Your task to perform on an android device: turn on the 24-hour format for clock Image 0: 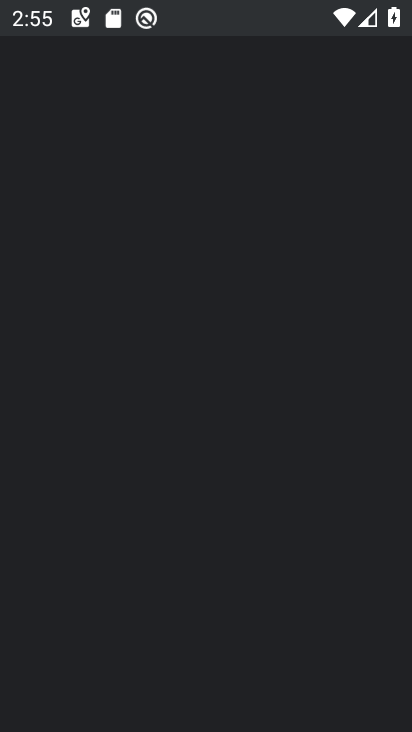
Step 0: drag from (208, 514) to (204, 183)
Your task to perform on an android device: turn on the 24-hour format for clock Image 1: 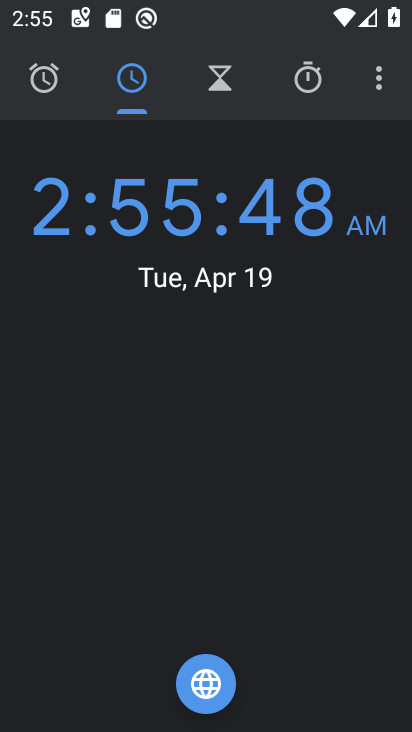
Step 1: press home button
Your task to perform on an android device: turn on the 24-hour format for clock Image 2: 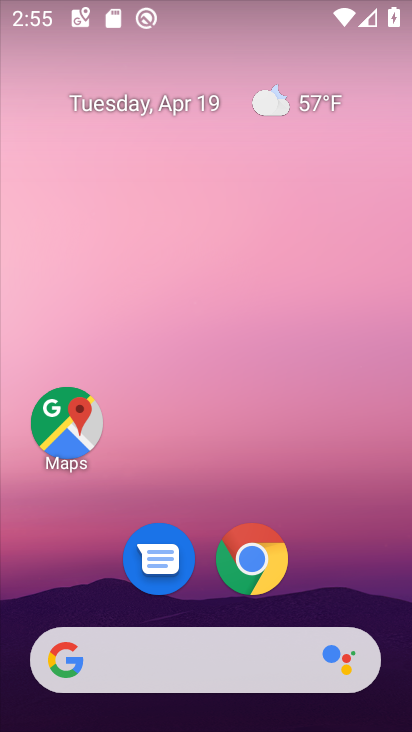
Step 2: drag from (209, 592) to (200, 122)
Your task to perform on an android device: turn on the 24-hour format for clock Image 3: 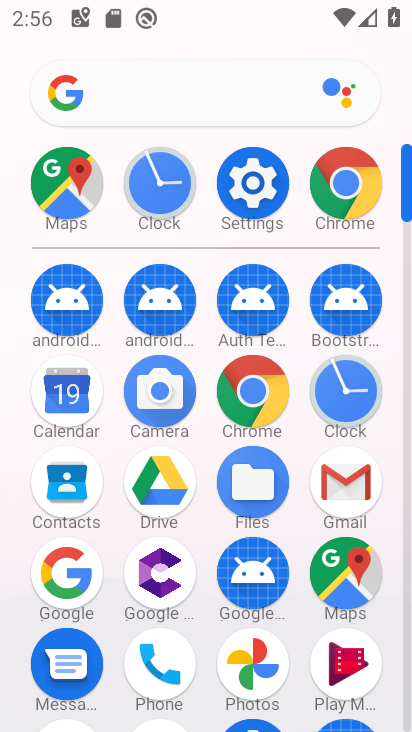
Step 3: click (341, 384)
Your task to perform on an android device: turn on the 24-hour format for clock Image 4: 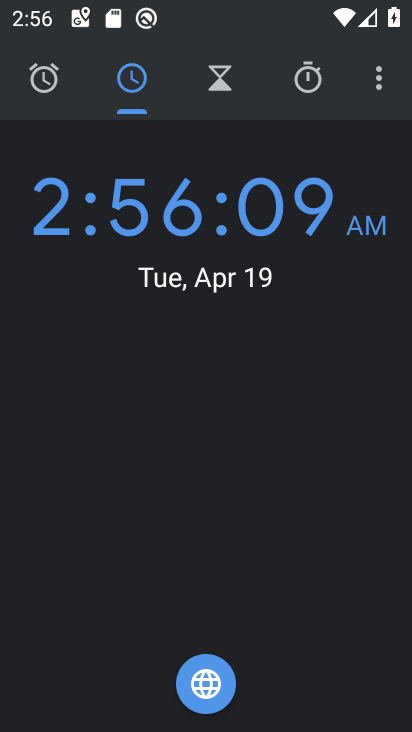
Step 4: click (378, 72)
Your task to perform on an android device: turn on the 24-hour format for clock Image 5: 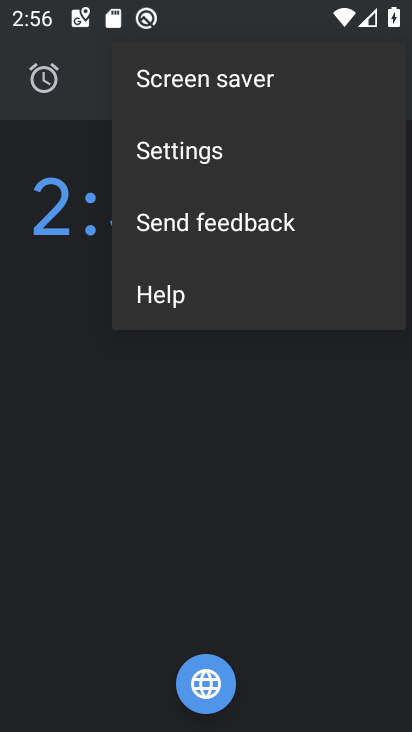
Step 5: click (236, 144)
Your task to perform on an android device: turn on the 24-hour format for clock Image 6: 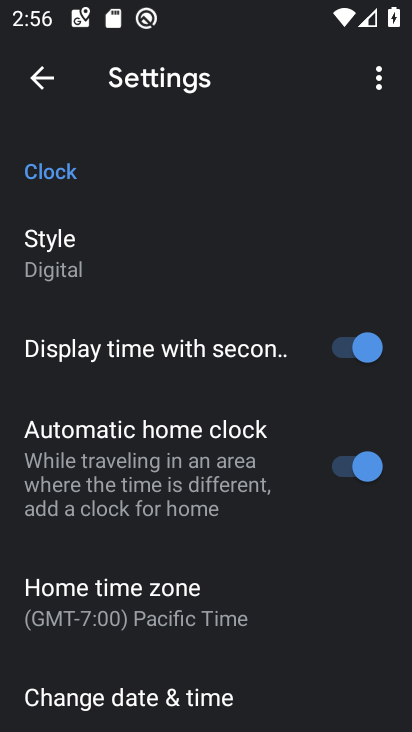
Step 6: click (245, 697)
Your task to perform on an android device: turn on the 24-hour format for clock Image 7: 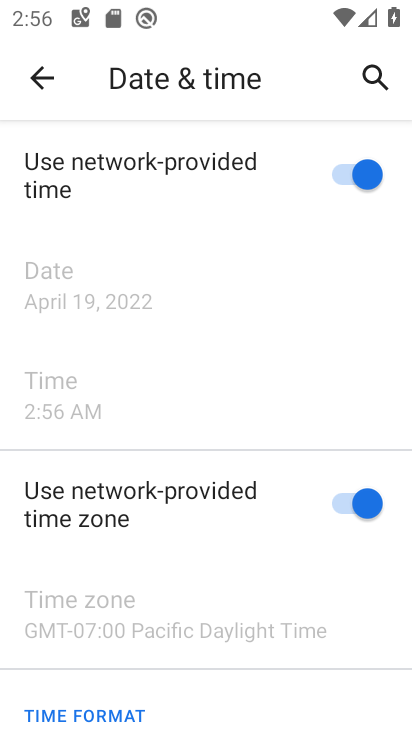
Step 7: drag from (227, 661) to (247, 216)
Your task to perform on an android device: turn on the 24-hour format for clock Image 8: 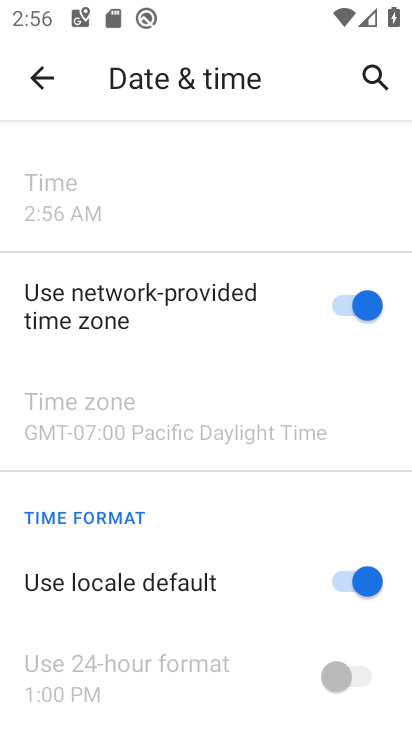
Step 8: click (352, 574)
Your task to perform on an android device: turn on the 24-hour format for clock Image 9: 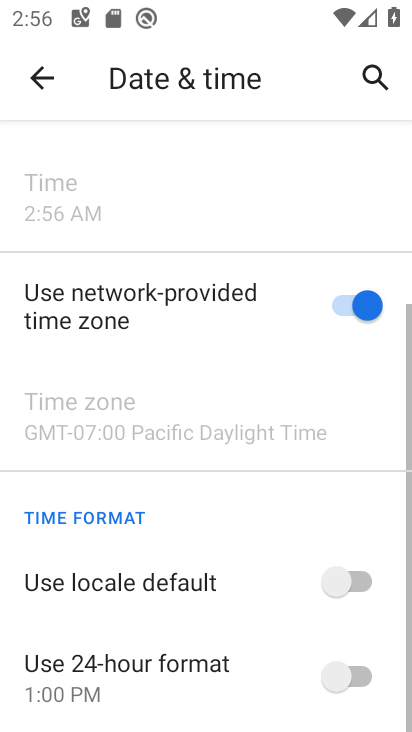
Step 9: click (355, 675)
Your task to perform on an android device: turn on the 24-hour format for clock Image 10: 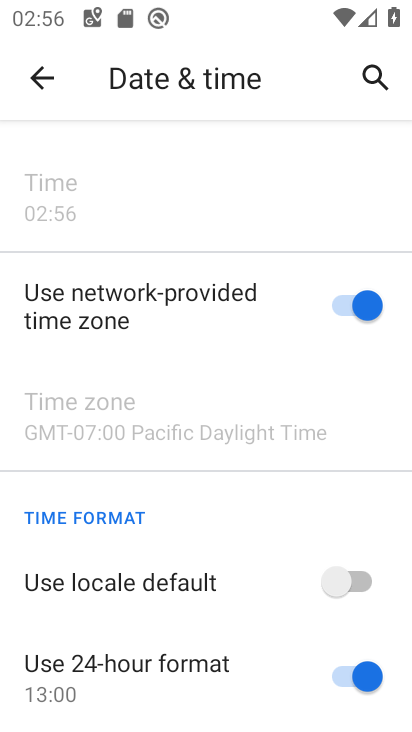
Step 10: task complete